Your task to perform on an android device: Open calendar and show me the second week of next month Image 0: 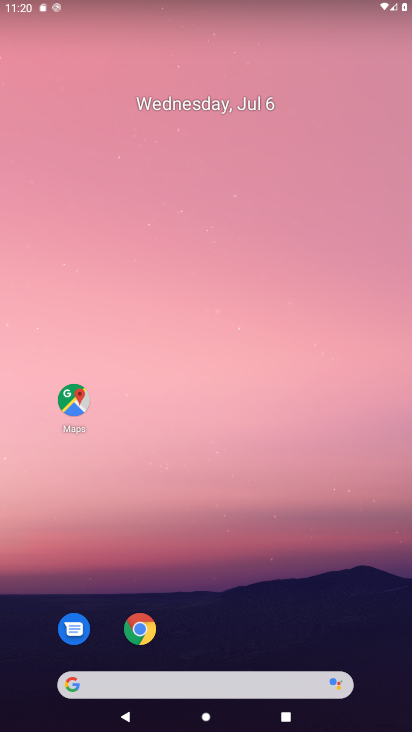
Step 0: drag from (359, 391) to (380, 100)
Your task to perform on an android device: Open calendar and show me the second week of next month Image 1: 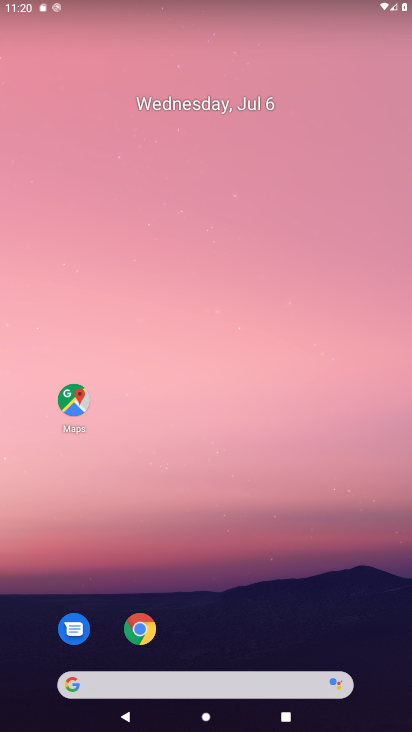
Step 1: drag from (322, 562) to (311, 45)
Your task to perform on an android device: Open calendar and show me the second week of next month Image 2: 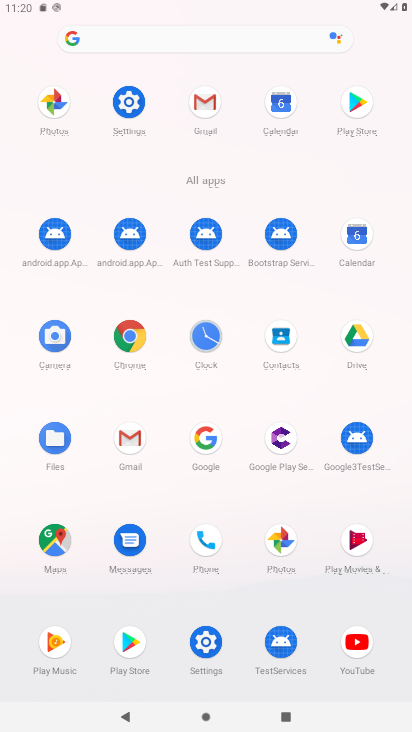
Step 2: click (347, 247)
Your task to perform on an android device: Open calendar and show me the second week of next month Image 3: 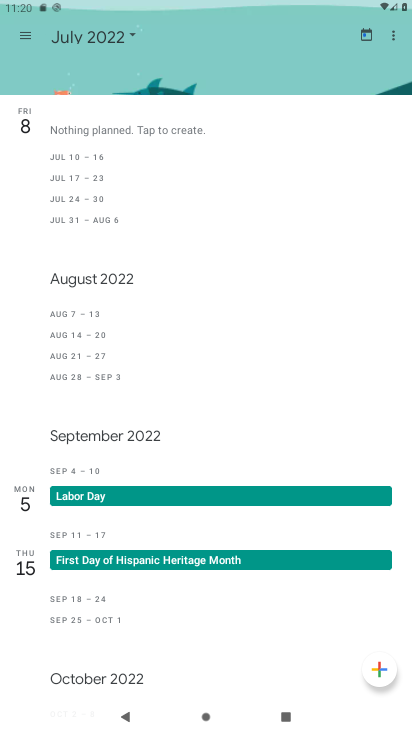
Step 3: click (131, 31)
Your task to perform on an android device: Open calendar and show me the second week of next month Image 4: 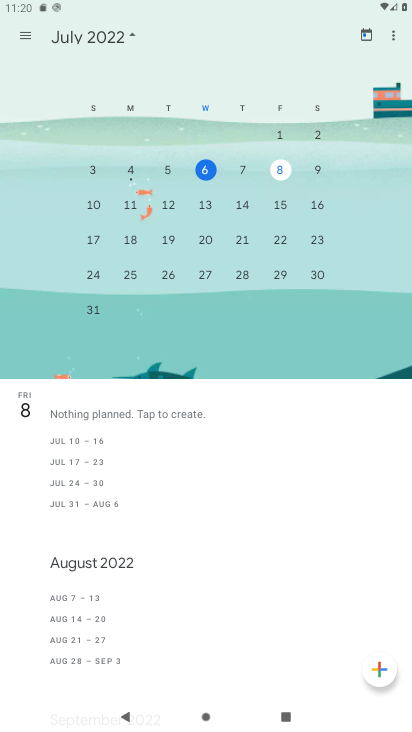
Step 4: drag from (355, 155) to (16, 158)
Your task to perform on an android device: Open calendar and show me the second week of next month Image 5: 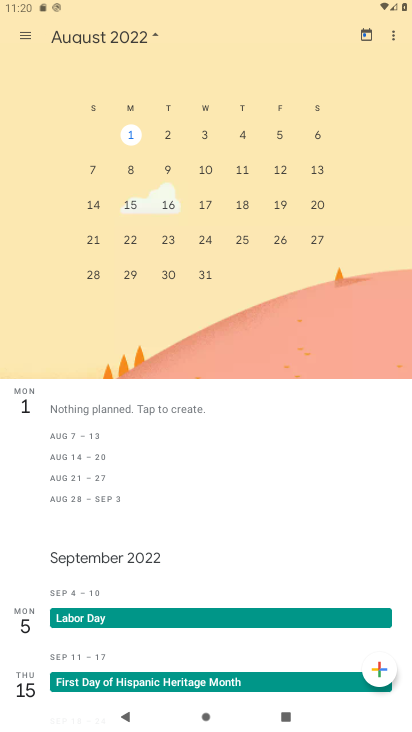
Step 5: click (128, 171)
Your task to perform on an android device: Open calendar and show me the second week of next month Image 6: 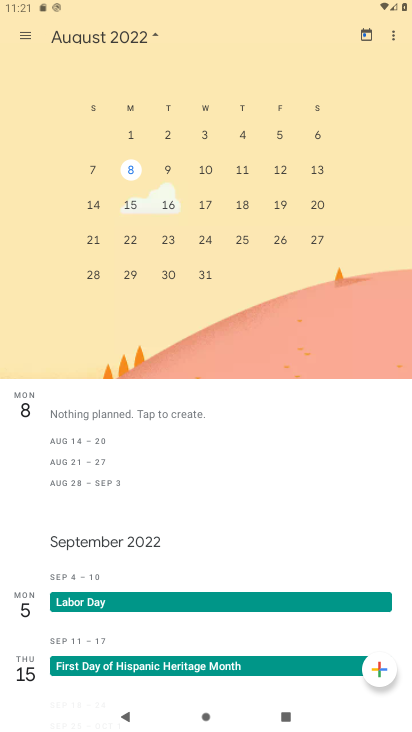
Step 6: task complete